Your task to perform on an android device: Open the stopwatch Image 0: 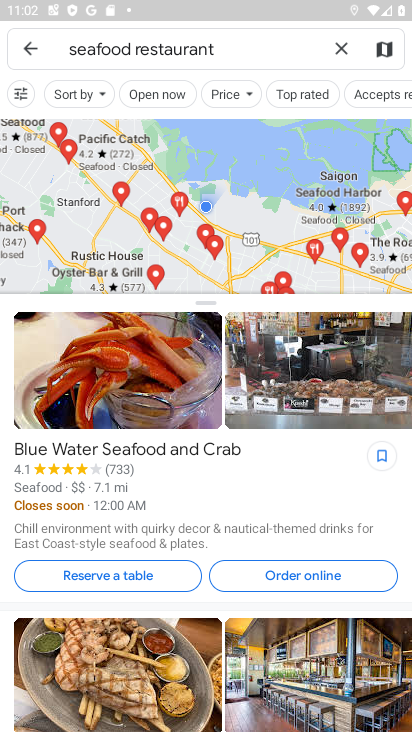
Step 0: press home button
Your task to perform on an android device: Open the stopwatch Image 1: 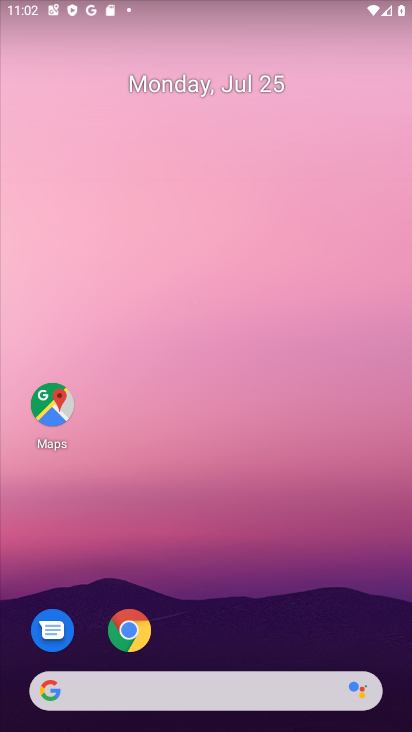
Step 1: drag from (204, 663) to (211, 8)
Your task to perform on an android device: Open the stopwatch Image 2: 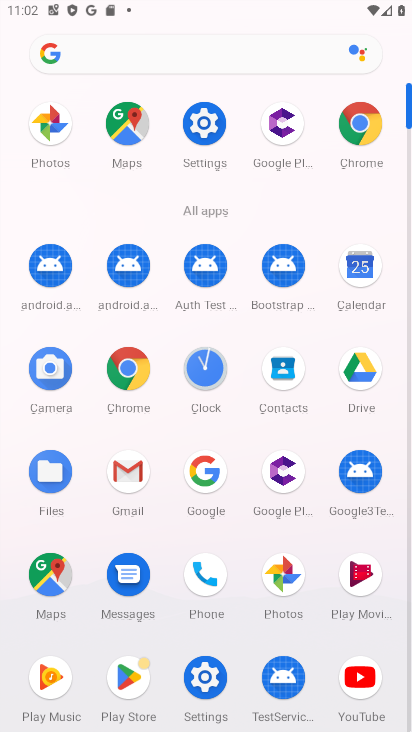
Step 2: click (205, 376)
Your task to perform on an android device: Open the stopwatch Image 3: 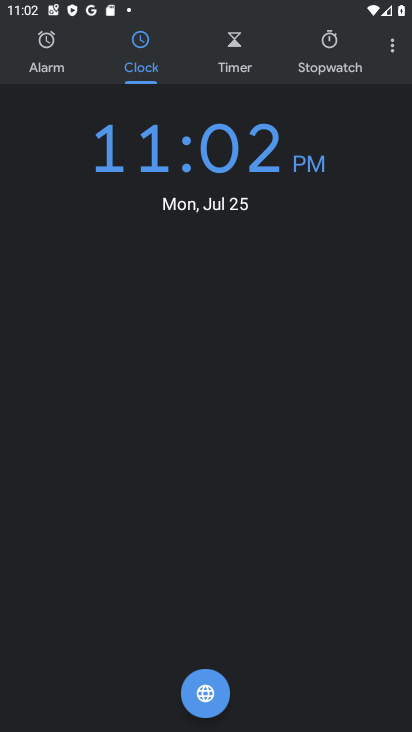
Step 3: click (328, 60)
Your task to perform on an android device: Open the stopwatch Image 4: 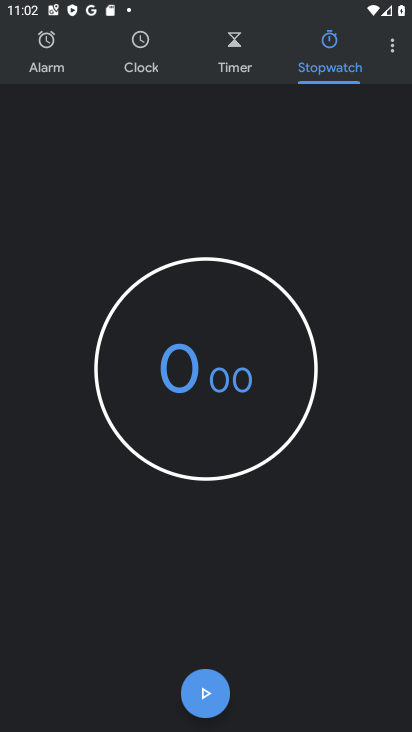
Step 4: task complete